Your task to perform on an android device: clear all cookies in the chrome app Image 0: 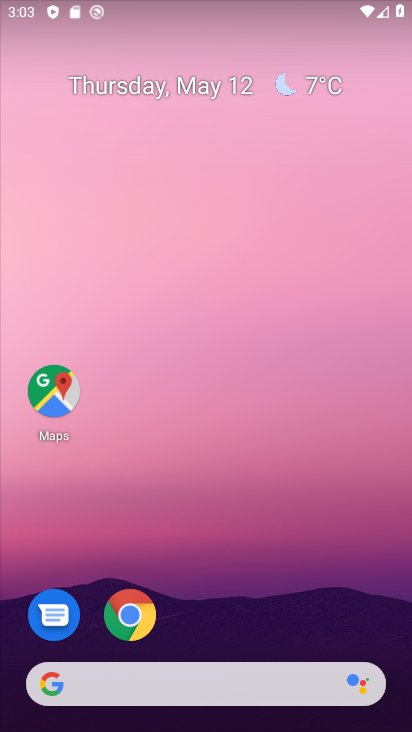
Step 0: drag from (310, 449) to (333, 52)
Your task to perform on an android device: clear all cookies in the chrome app Image 1: 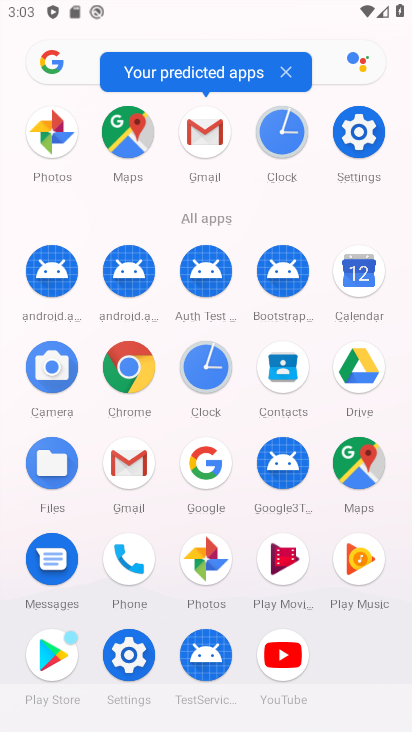
Step 1: click (129, 357)
Your task to perform on an android device: clear all cookies in the chrome app Image 2: 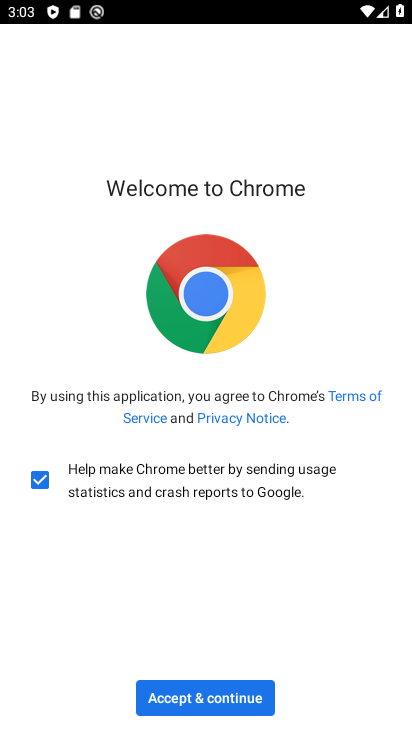
Step 2: click (149, 691)
Your task to perform on an android device: clear all cookies in the chrome app Image 3: 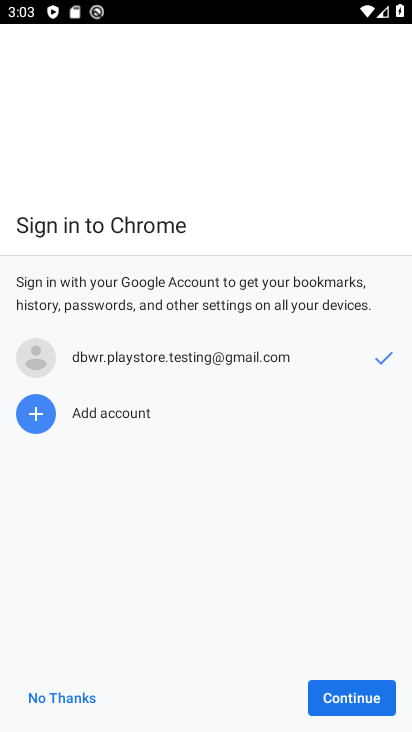
Step 3: click (330, 688)
Your task to perform on an android device: clear all cookies in the chrome app Image 4: 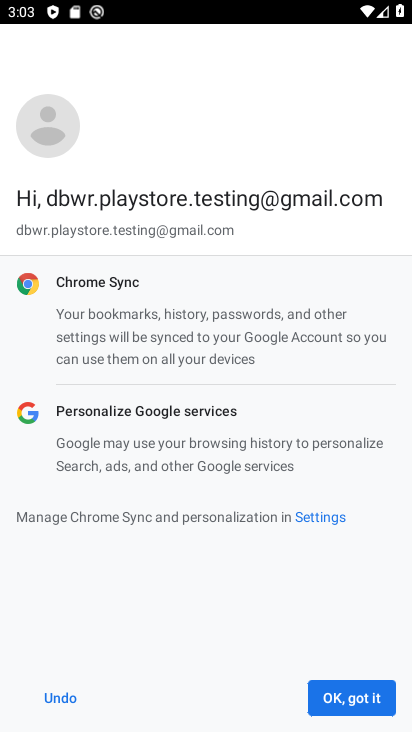
Step 4: click (331, 691)
Your task to perform on an android device: clear all cookies in the chrome app Image 5: 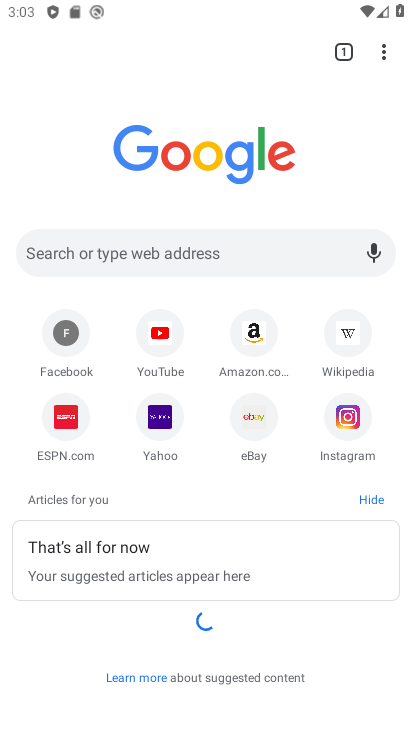
Step 5: drag from (381, 52) to (217, 440)
Your task to perform on an android device: clear all cookies in the chrome app Image 6: 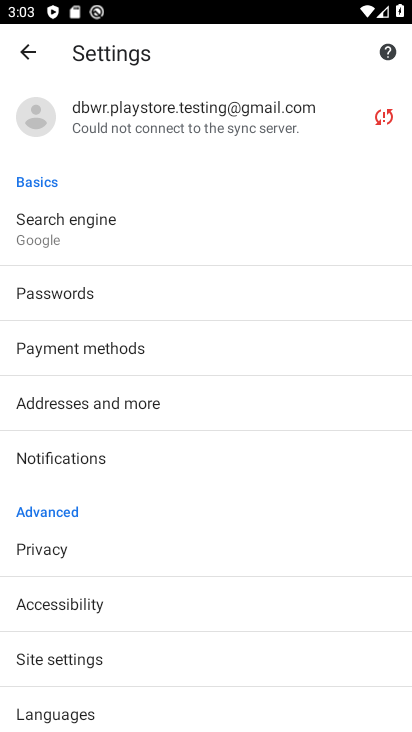
Step 6: click (107, 536)
Your task to perform on an android device: clear all cookies in the chrome app Image 7: 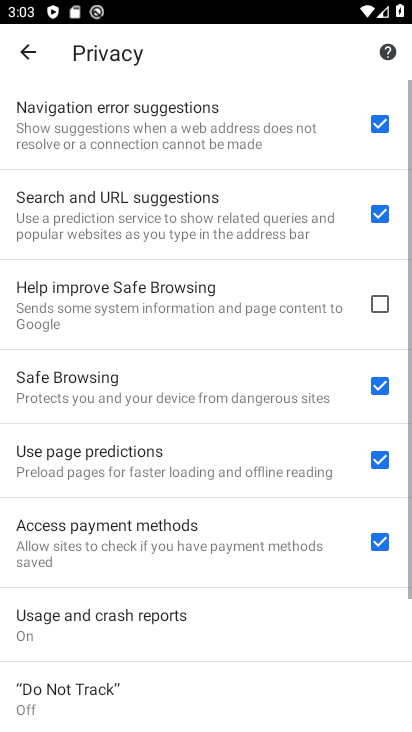
Step 7: drag from (211, 655) to (305, 34)
Your task to perform on an android device: clear all cookies in the chrome app Image 8: 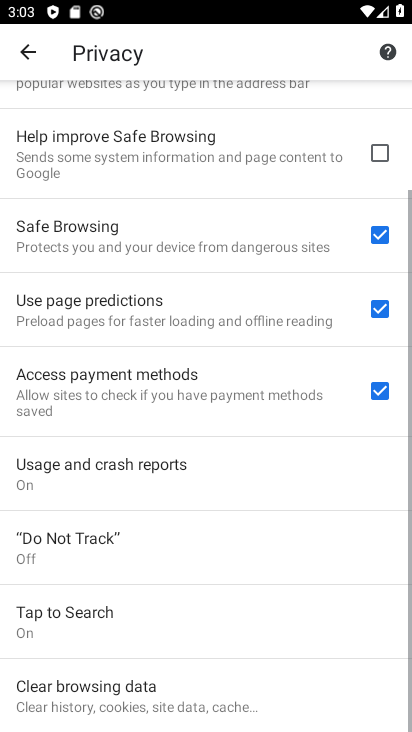
Step 8: click (137, 688)
Your task to perform on an android device: clear all cookies in the chrome app Image 9: 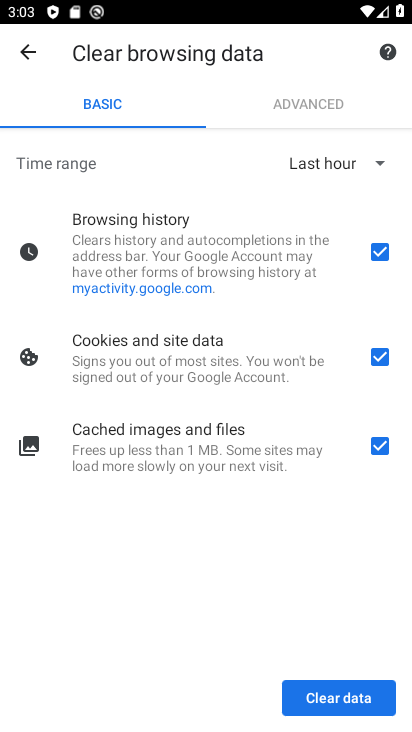
Step 9: click (334, 694)
Your task to perform on an android device: clear all cookies in the chrome app Image 10: 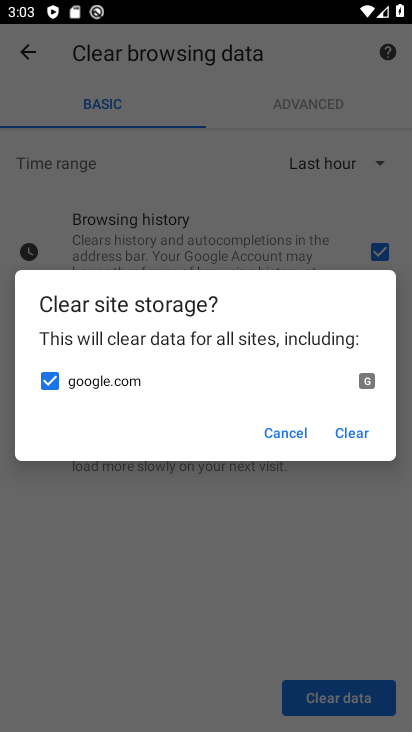
Step 10: task complete